Your task to perform on an android device: manage bookmarks in the chrome app Image 0: 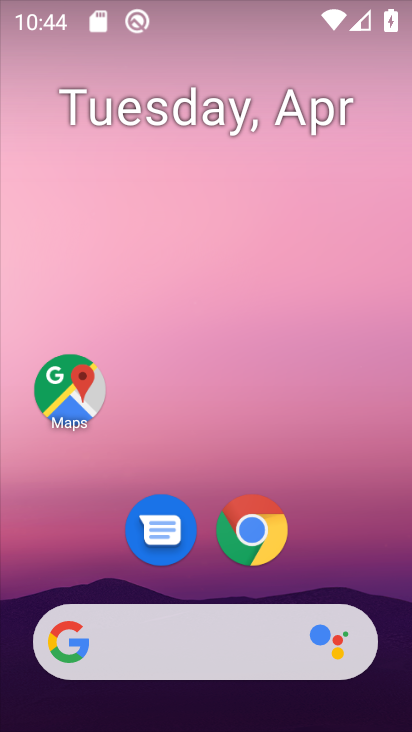
Step 0: drag from (192, 630) to (318, 97)
Your task to perform on an android device: manage bookmarks in the chrome app Image 1: 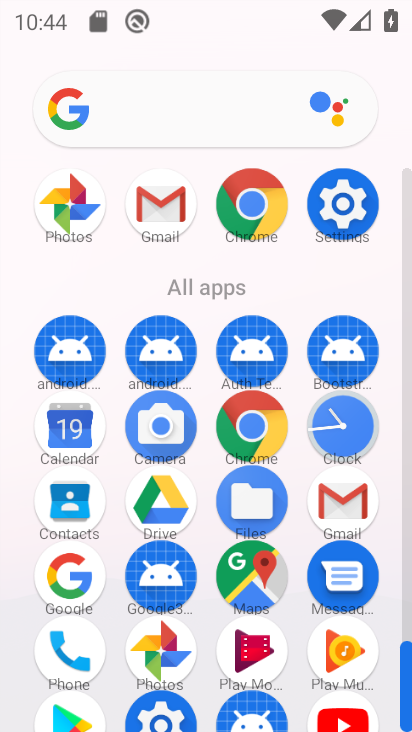
Step 1: click (264, 220)
Your task to perform on an android device: manage bookmarks in the chrome app Image 2: 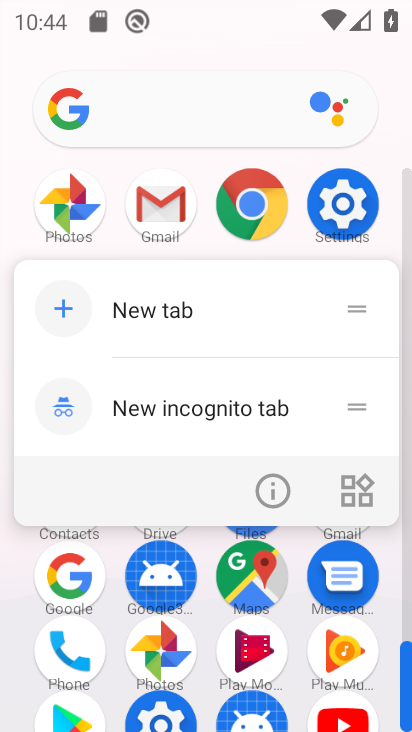
Step 2: click (243, 209)
Your task to perform on an android device: manage bookmarks in the chrome app Image 3: 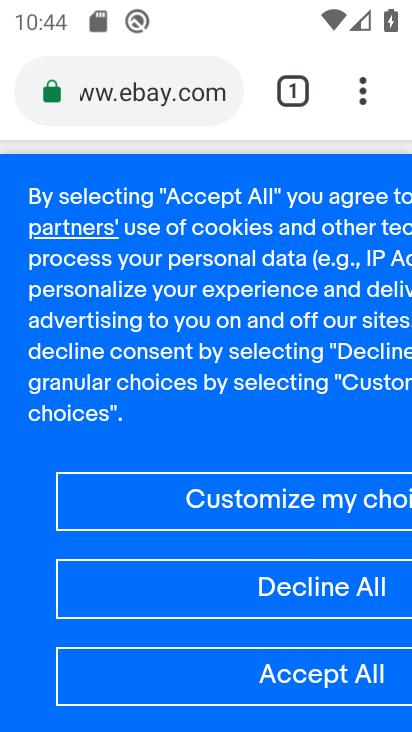
Step 3: click (362, 105)
Your task to perform on an android device: manage bookmarks in the chrome app Image 4: 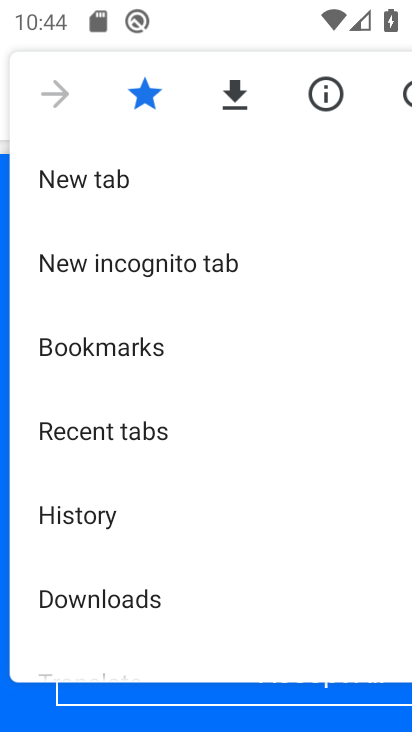
Step 4: click (136, 351)
Your task to perform on an android device: manage bookmarks in the chrome app Image 5: 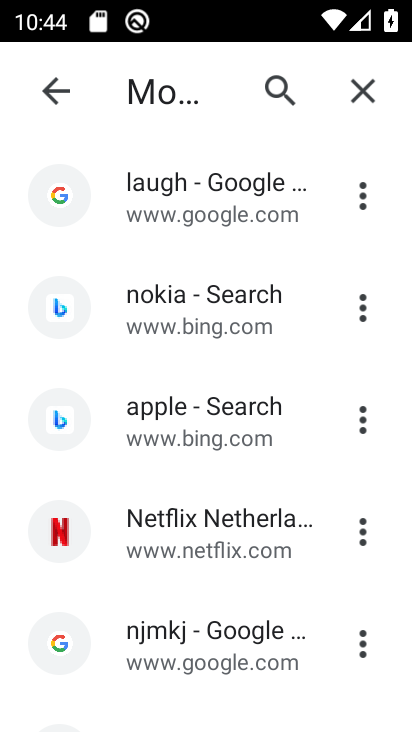
Step 5: click (361, 194)
Your task to perform on an android device: manage bookmarks in the chrome app Image 6: 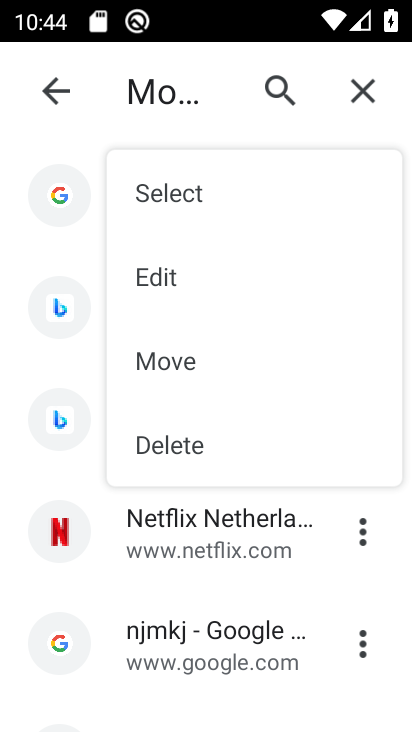
Step 6: click (183, 449)
Your task to perform on an android device: manage bookmarks in the chrome app Image 7: 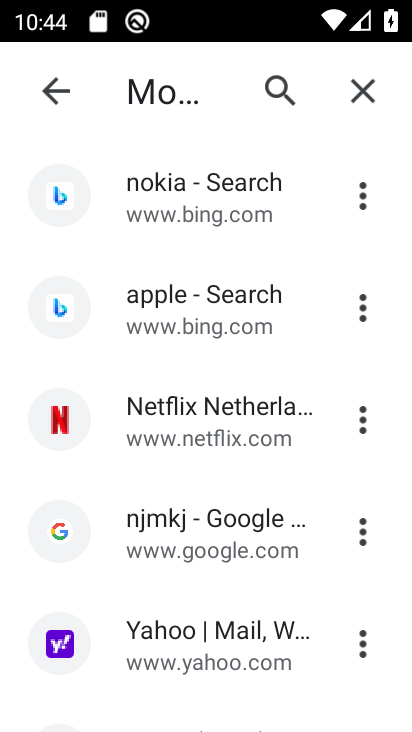
Step 7: task complete